Your task to perform on an android device: Who is the prime minister of the United Kingdom? Image 0: 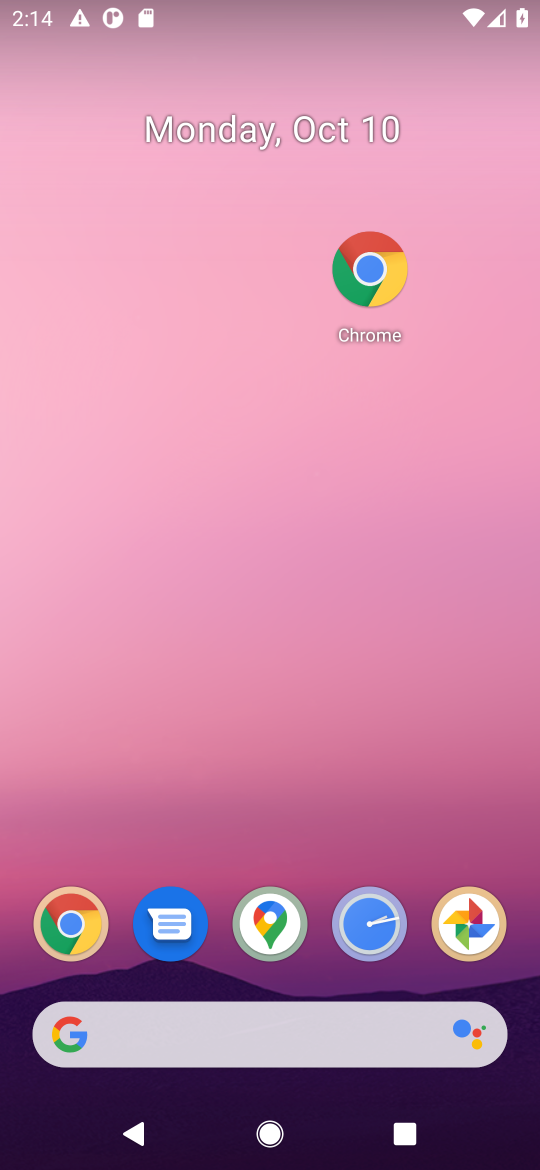
Step 0: drag from (213, 848) to (284, 0)
Your task to perform on an android device: Who is the prime minister of the United Kingdom? Image 1: 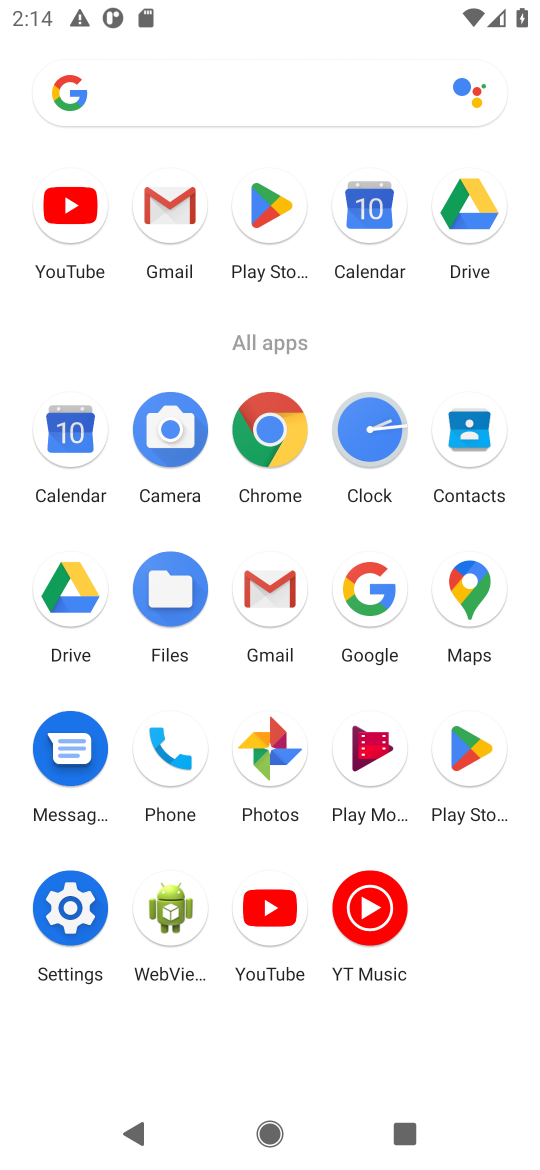
Step 1: click (276, 421)
Your task to perform on an android device: Who is the prime minister of the United Kingdom? Image 2: 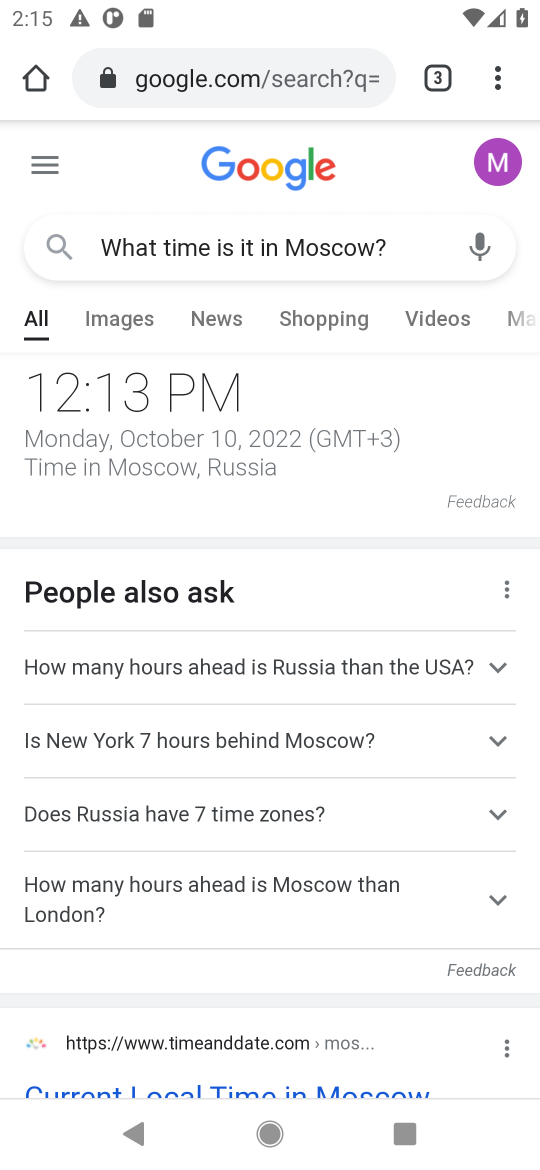
Step 2: click (145, 79)
Your task to perform on an android device: Who is the prime minister of the United Kingdom? Image 3: 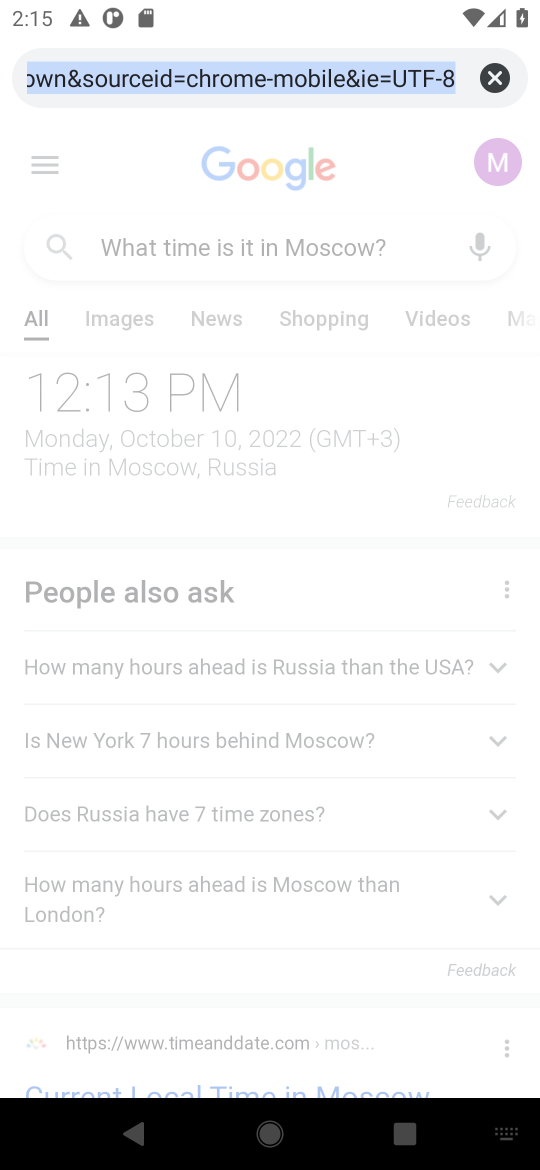
Step 3: click (501, 80)
Your task to perform on an android device: Who is the prime minister of the United Kingdom? Image 4: 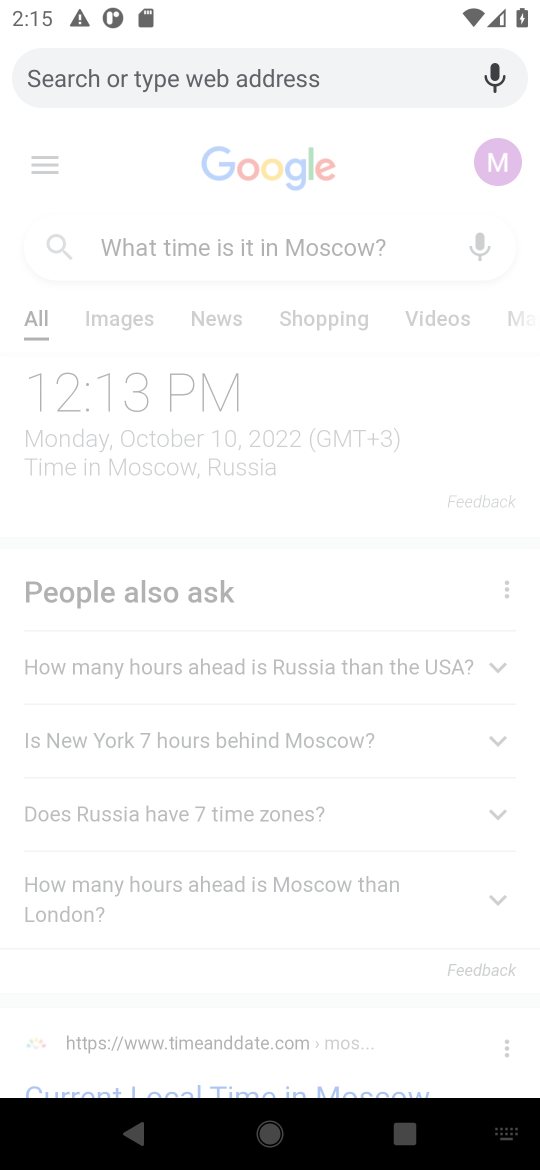
Step 4: type "Who is the prime minister of the United Kingdom?"
Your task to perform on an android device: Who is the prime minister of the United Kingdom? Image 5: 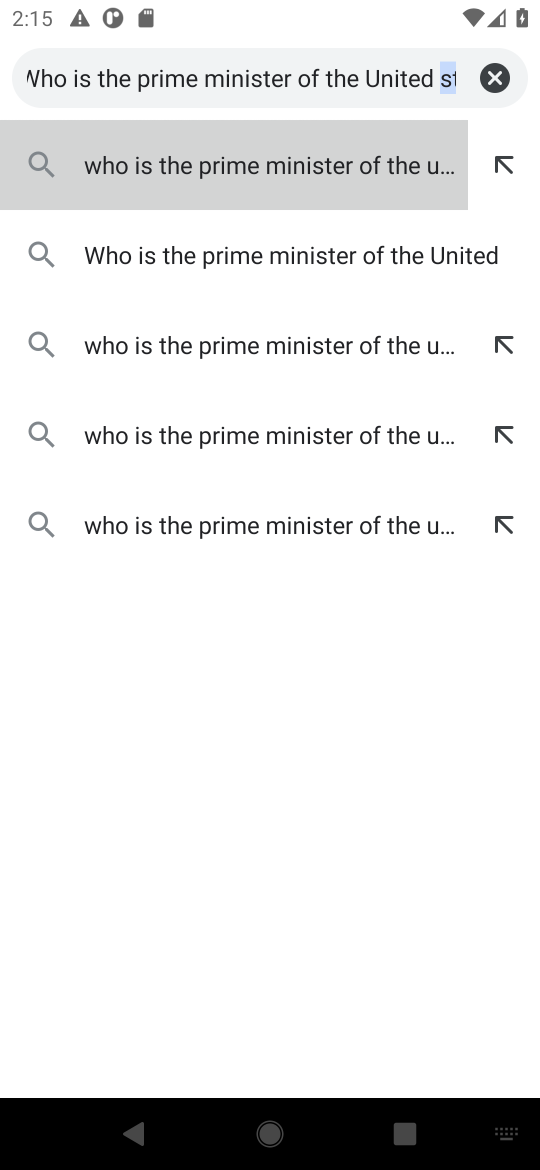
Step 5: click (372, 155)
Your task to perform on an android device: Who is the prime minister of the United Kingdom? Image 6: 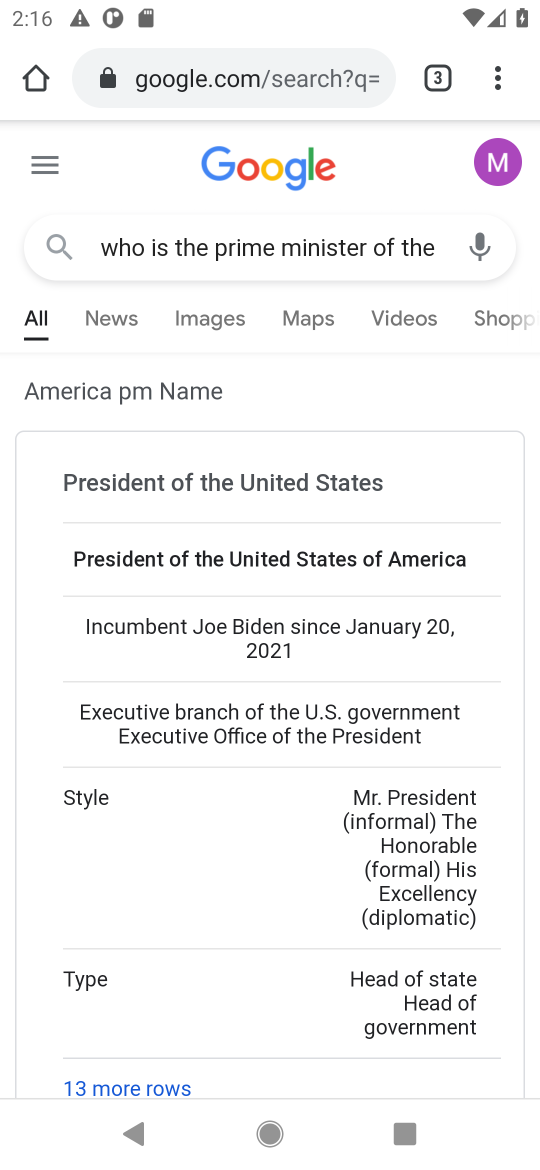
Step 6: task complete